Your task to perform on an android device: toggle show notifications on the lock screen Image 0: 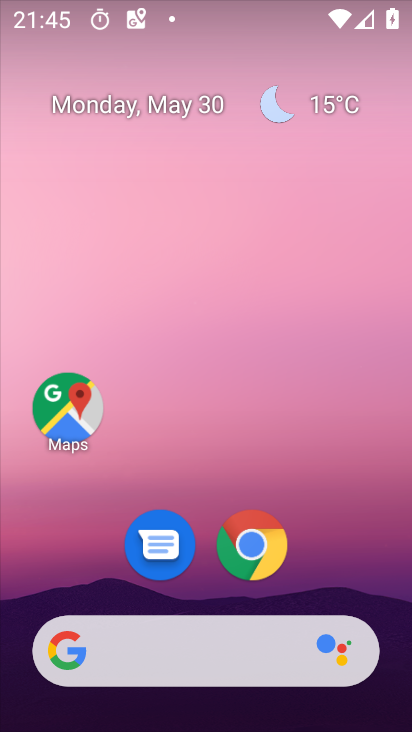
Step 0: drag from (326, 552) to (355, 14)
Your task to perform on an android device: toggle show notifications on the lock screen Image 1: 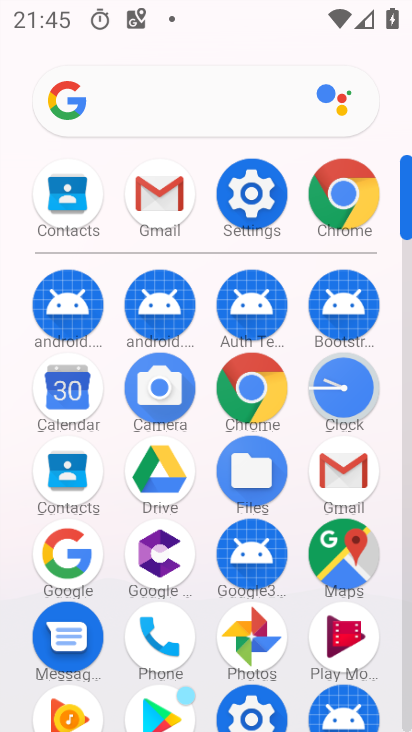
Step 1: click (245, 193)
Your task to perform on an android device: toggle show notifications on the lock screen Image 2: 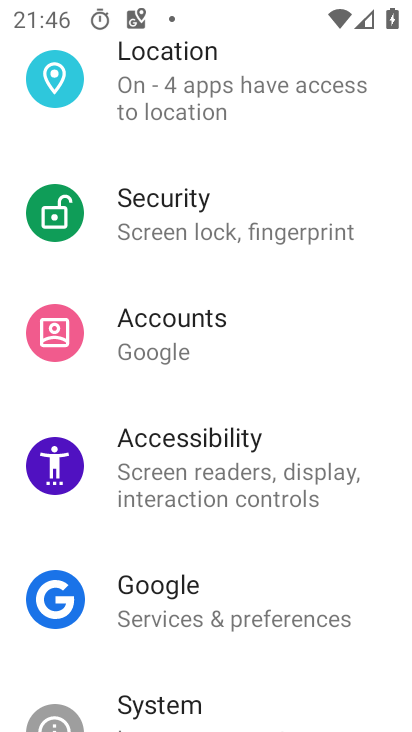
Step 2: drag from (297, 163) to (271, 511)
Your task to perform on an android device: toggle show notifications on the lock screen Image 3: 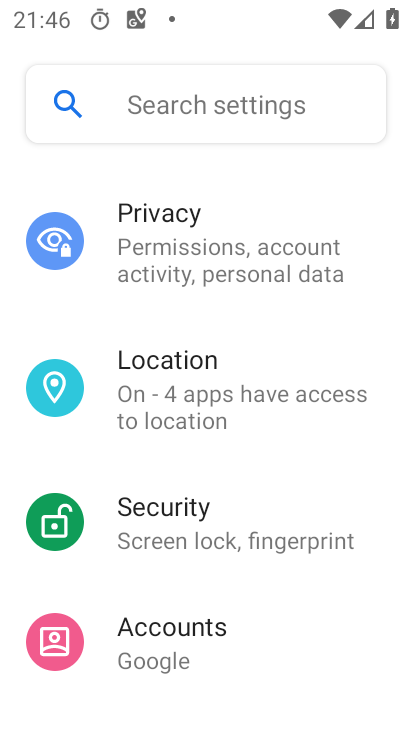
Step 3: drag from (275, 269) to (267, 651)
Your task to perform on an android device: toggle show notifications on the lock screen Image 4: 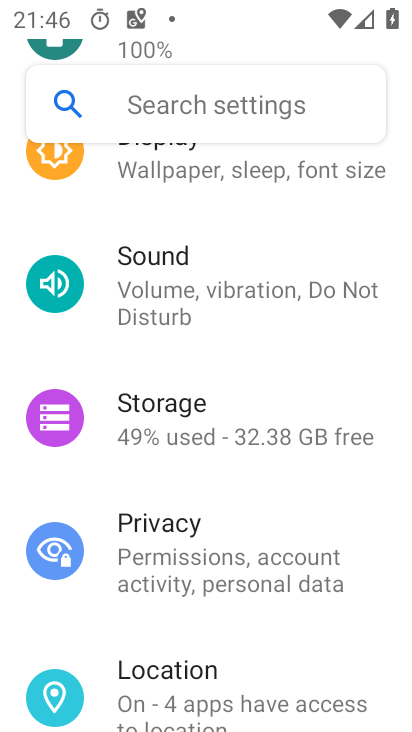
Step 4: drag from (273, 361) to (284, 611)
Your task to perform on an android device: toggle show notifications on the lock screen Image 5: 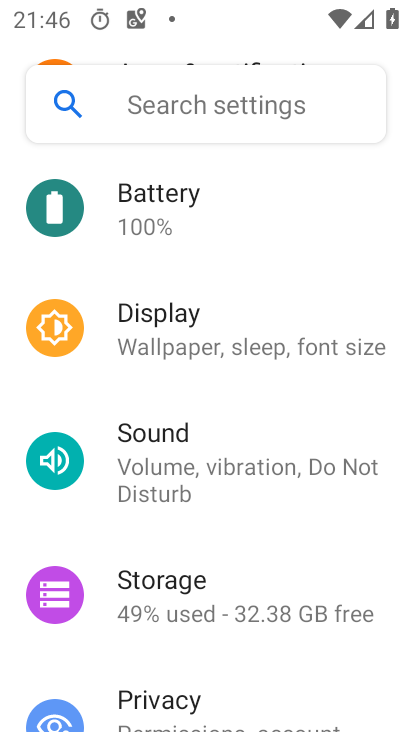
Step 5: drag from (297, 279) to (287, 578)
Your task to perform on an android device: toggle show notifications on the lock screen Image 6: 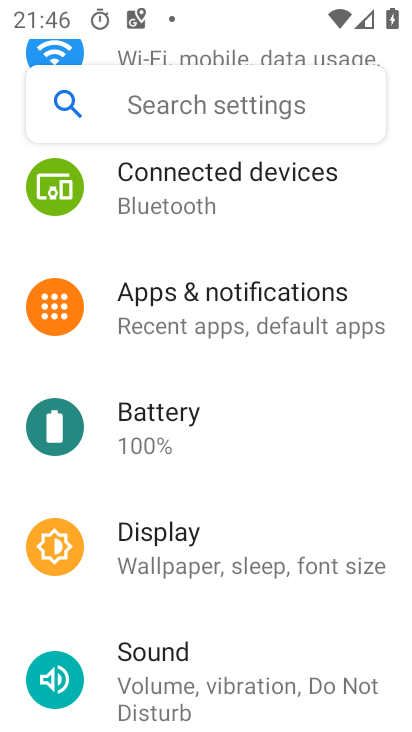
Step 6: click (244, 306)
Your task to perform on an android device: toggle show notifications on the lock screen Image 7: 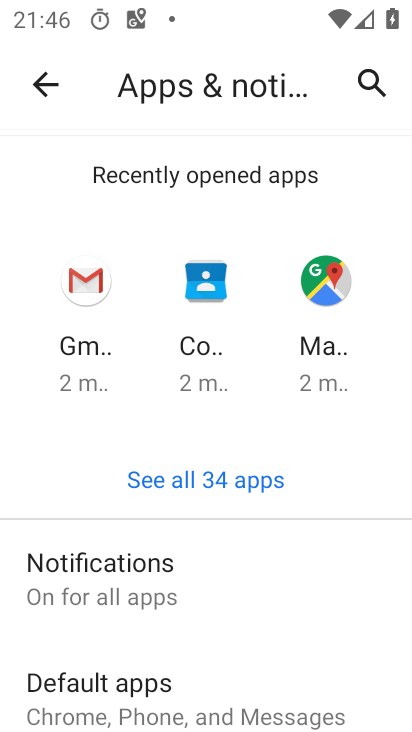
Step 7: click (174, 585)
Your task to perform on an android device: toggle show notifications on the lock screen Image 8: 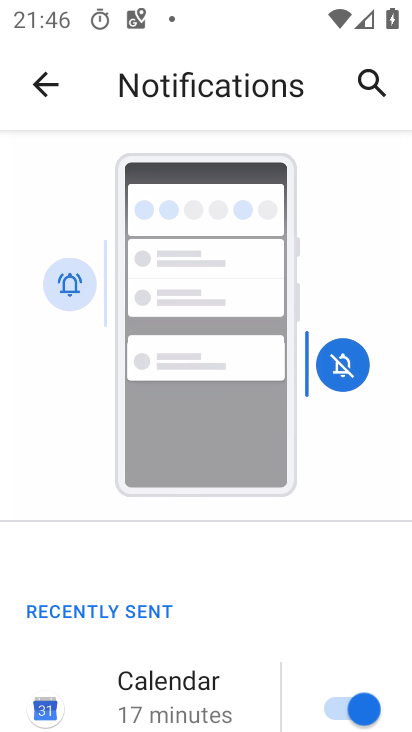
Step 8: drag from (264, 645) to (169, 208)
Your task to perform on an android device: toggle show notifications on the lock screen Image 9: 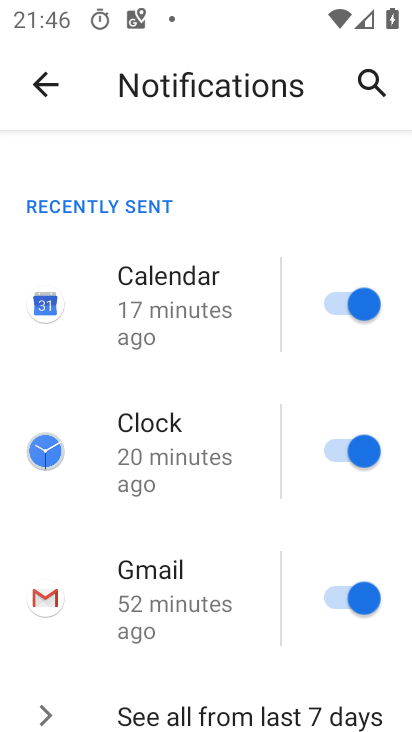
Step 9: drag from (198, 591) to (210, 191)
Your task to perform on an android device: toggle show notifications on the lock screen Image 10: 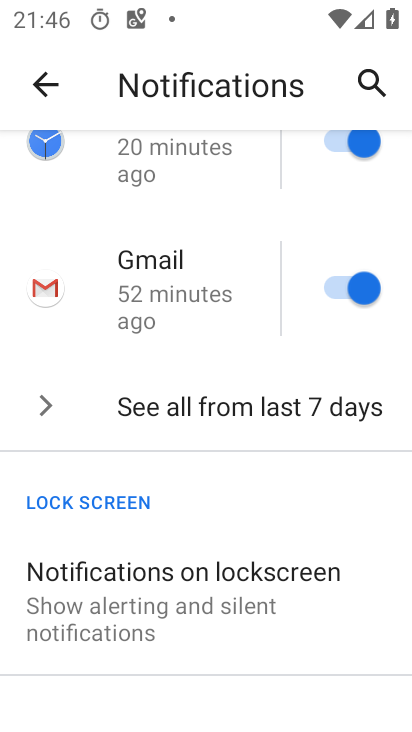
Step 10: click (229, 584)
Your task to perform on an android device: toggle show notifications on the lock screen Image 11: 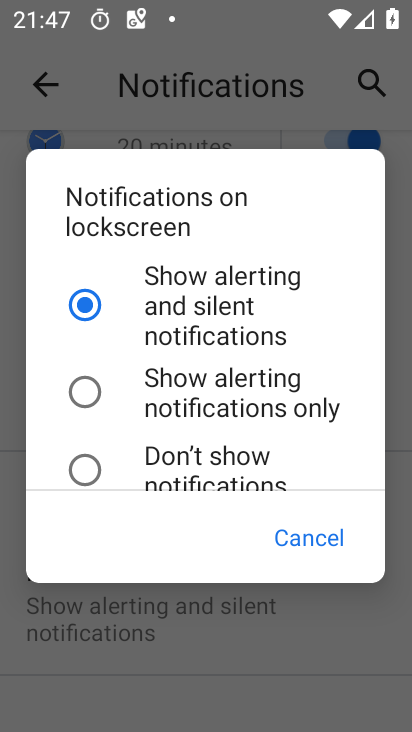
Step 11: click (88, 392)
Your task to perform on an android device: toggle show notifications on the lock screen Image 12: 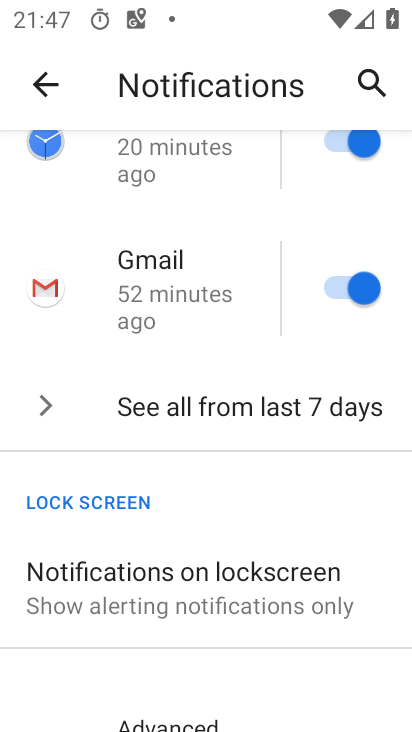
Step 12: task complete